Your task to perform on an android device: turn off wifi Image 0: 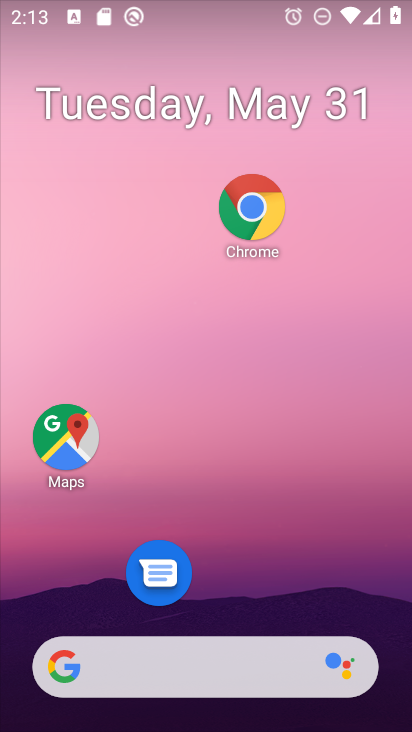
Step 0: drag from (282, 618) to (272, 51)
Your task to perform on an android device: turn off wifi Image 1: 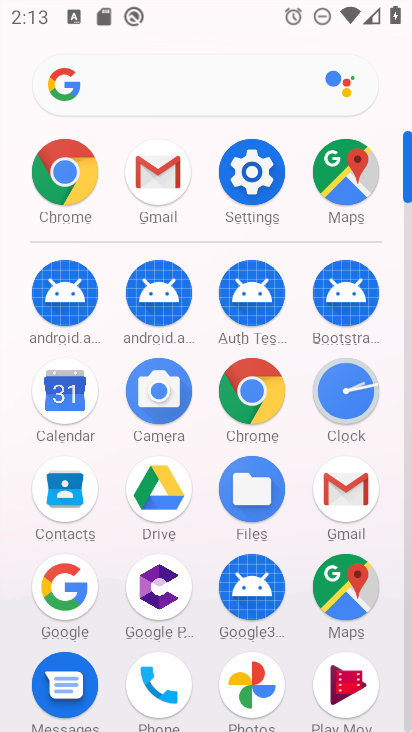
Step 1: click (251, 192)
Your task to perform on an android device: turn off wifi Image 2: 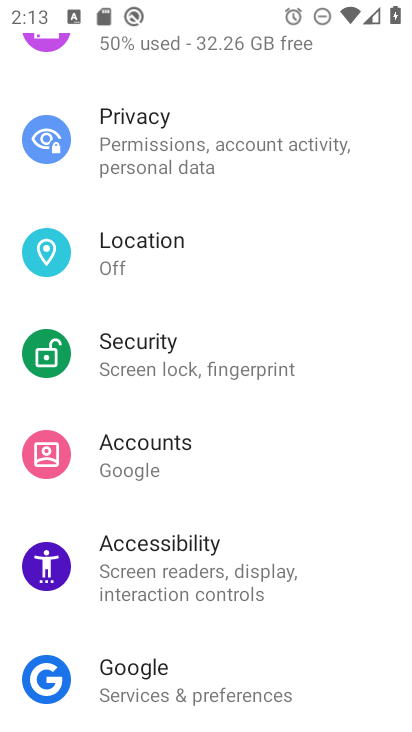
Step 2: drag from (211, 337) to (178, 726)
Your task to perform on an android device: turn off wifi Image 3: 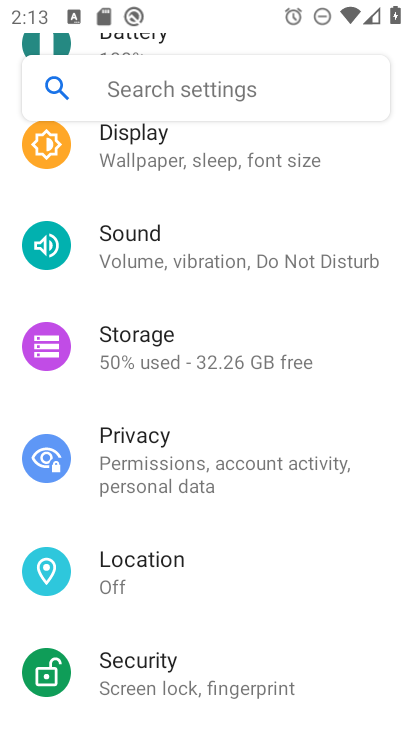
Step 3: drag from (161, 258) to (155, 664)
Your task to perform on an android device: turn off wifi Image 4: 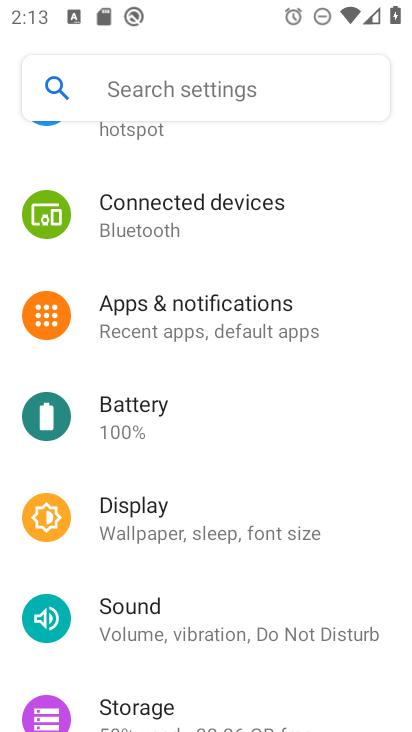
Step 4: drag from (127, 274) to (121, 581)
Your task to perform on an android device: turn off wifi Image 5: 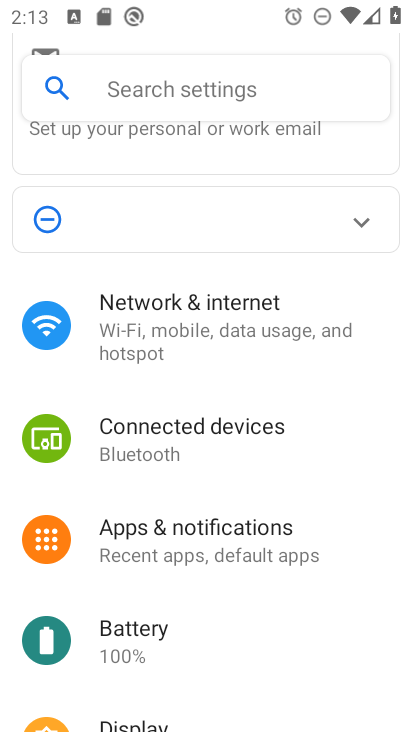
Step 5: click (184, 321)
Your task to perform on an android device: turn off wifi Image 6: 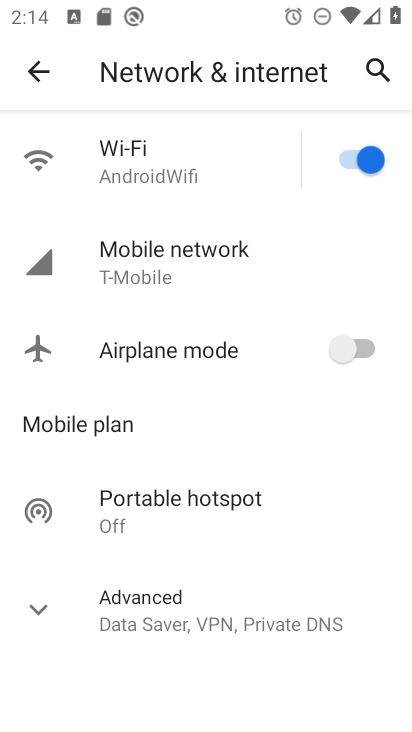
Step 6: click (341, 155)
Your task to perform on an android device: turn off wifi Image 7: 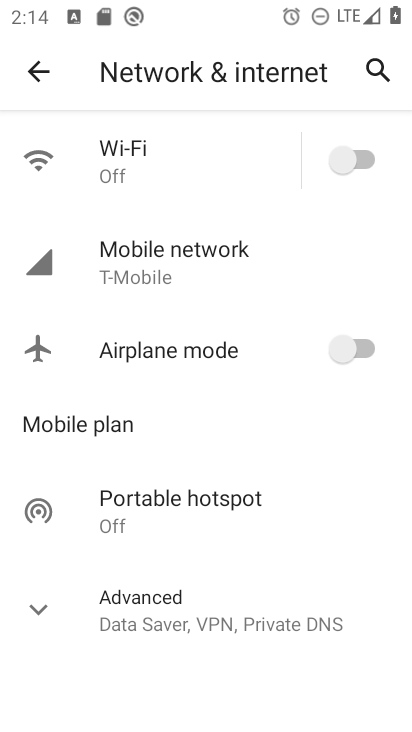
Step 7: task complete